Your task to perform on an android device: Open display settings Image 0: 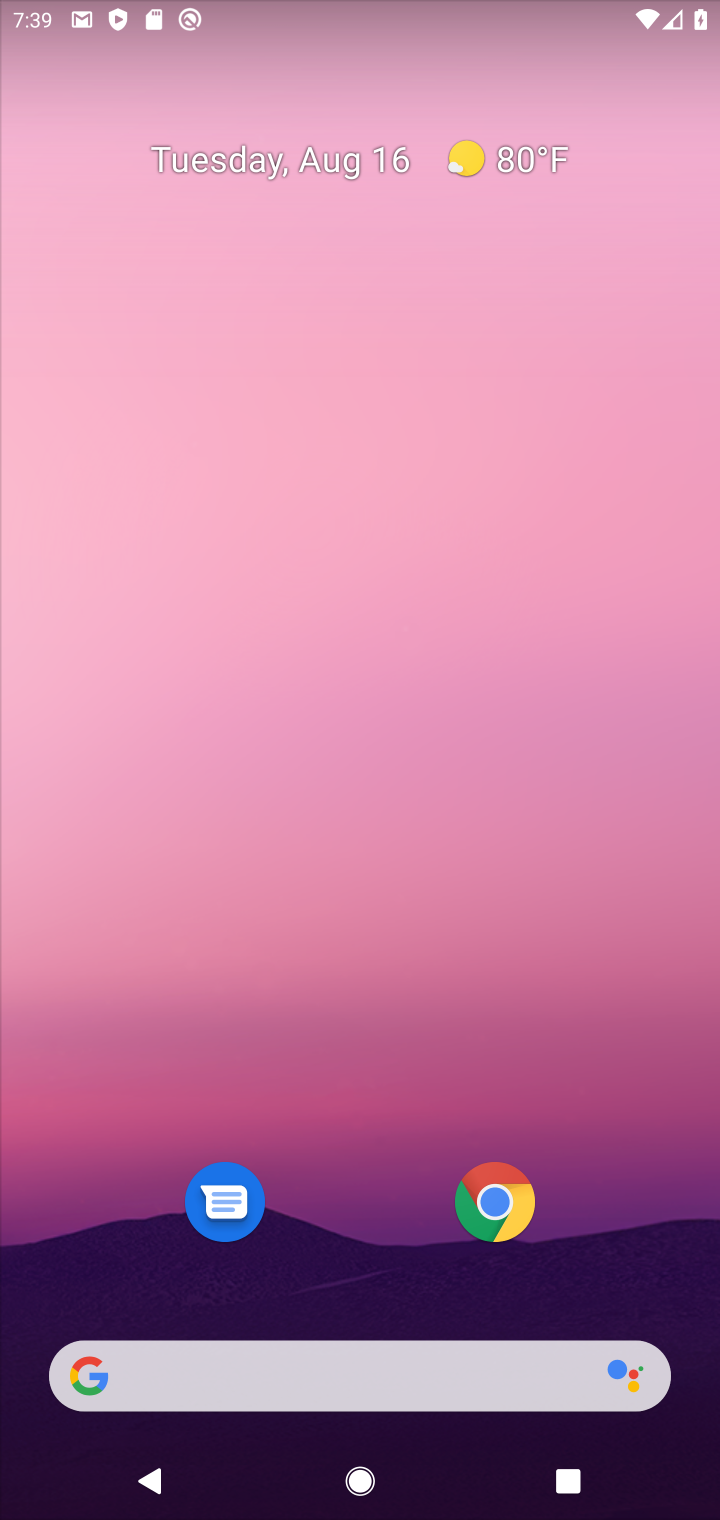
Step 0: drag from (291, 1316) to (314, 173)
Your task to perform on an android device: Open display settings Image 1: 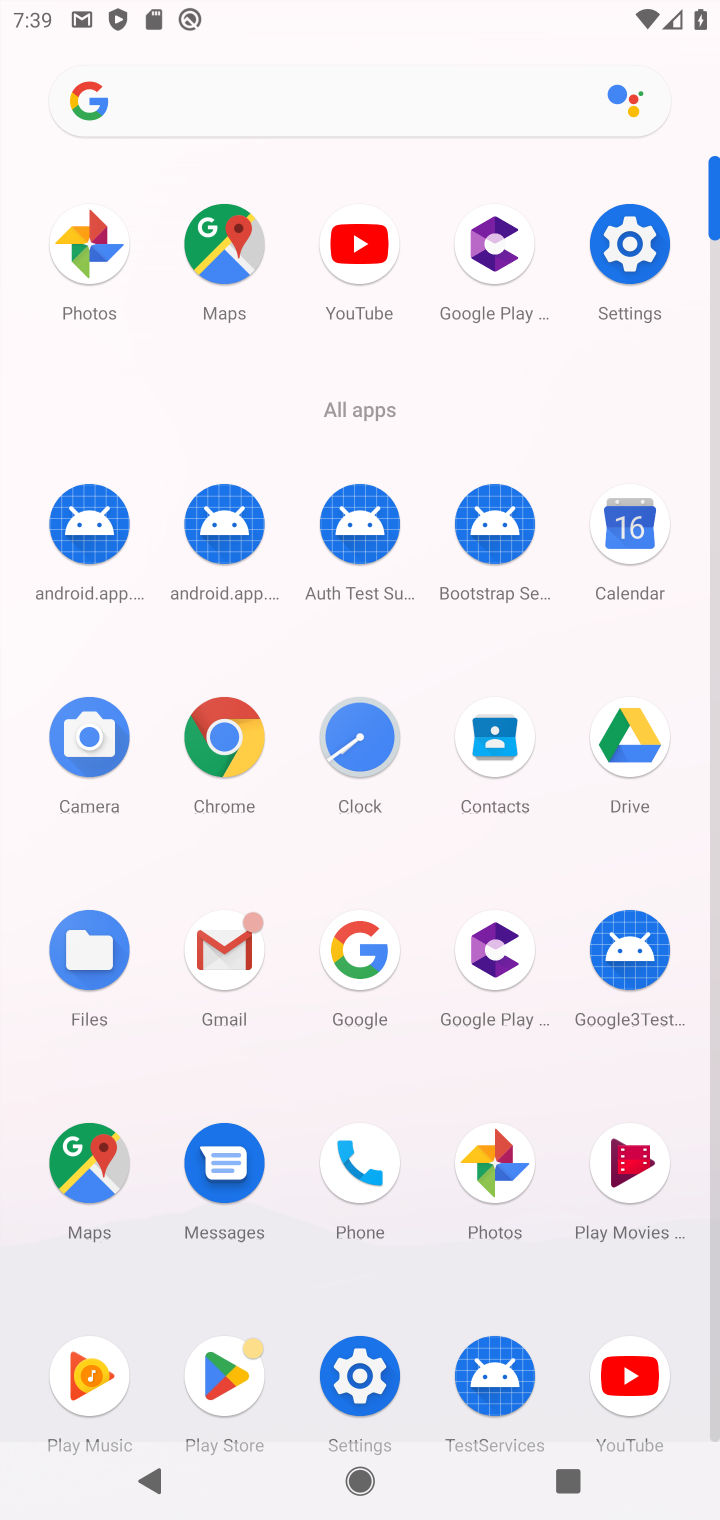
Step 1: click (619, 246)
Your task to perform on an android device: Open display settings Image 2: 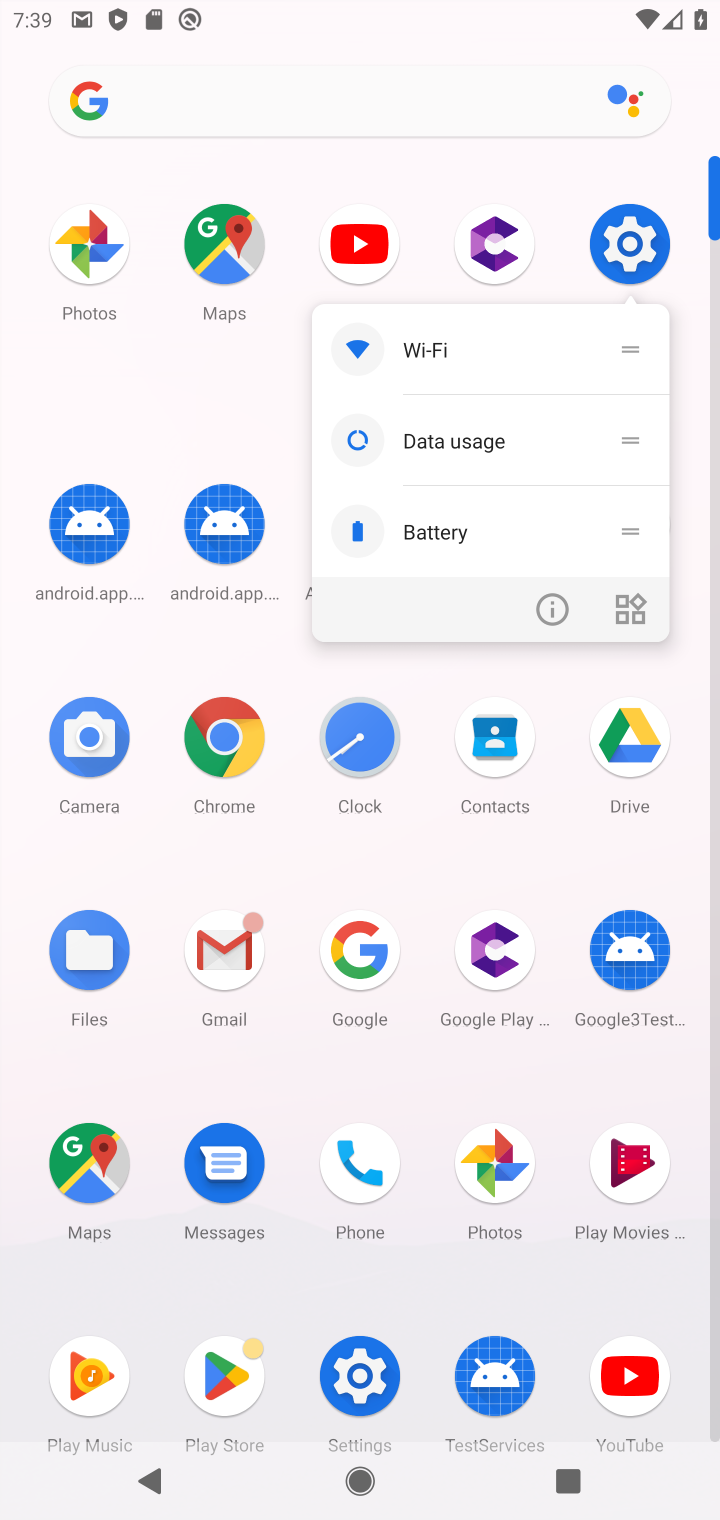
Step 2: click (618, 246)
Your task to perform on an android device: Open display settings Image 3: 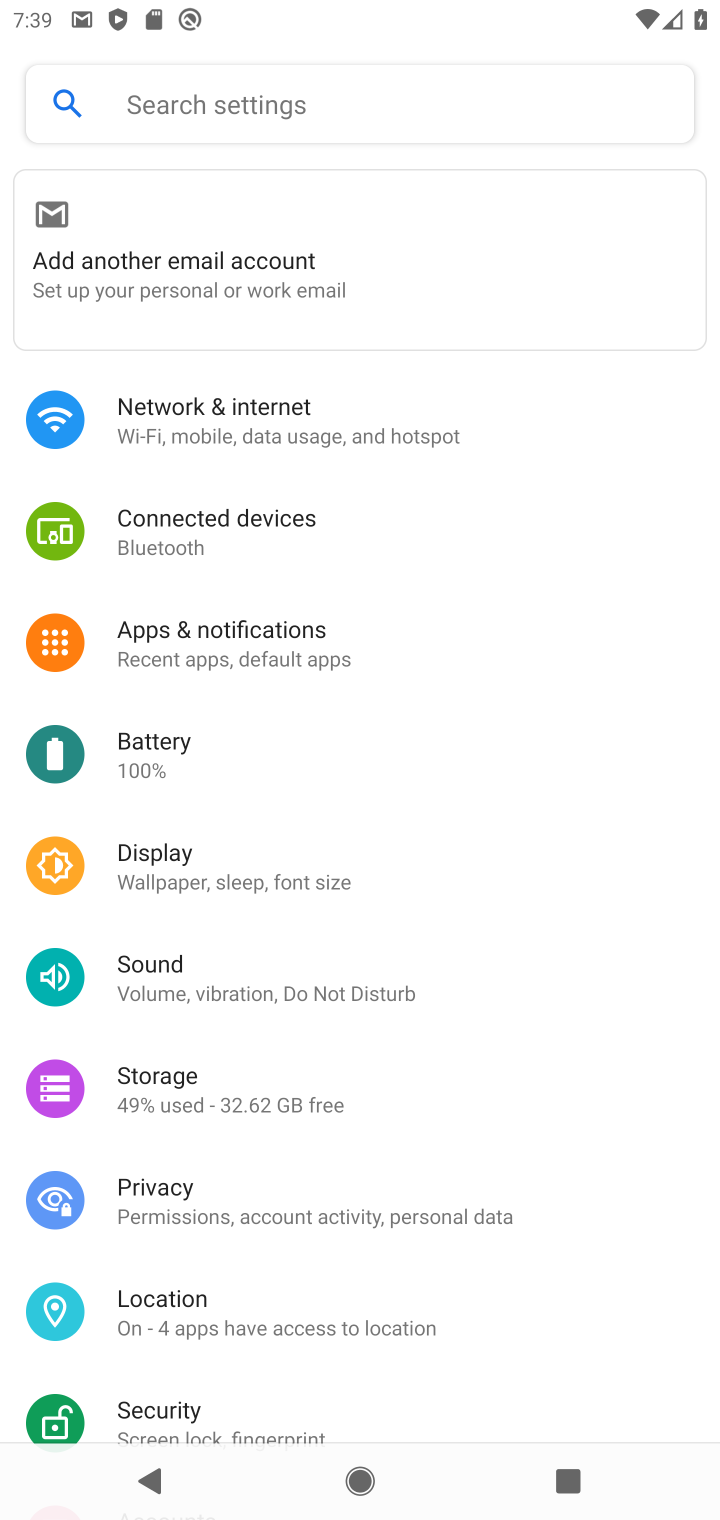
Step 3: click (184, 904)
Your task to perform on an android device: Open display settings Image 4: 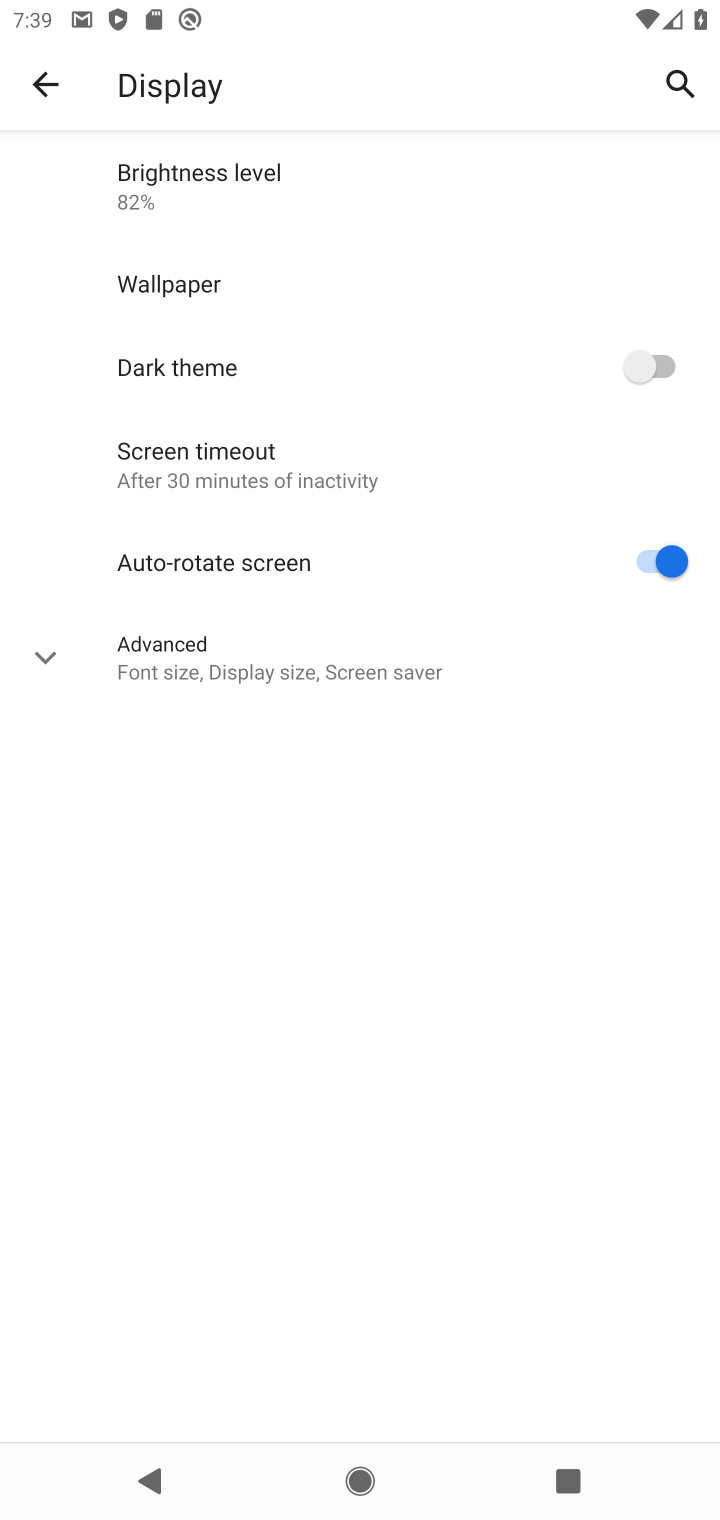
Step 4: task complete